Your task to perform on an android device: open the mobile data screen to see how much data has been used Image 0: 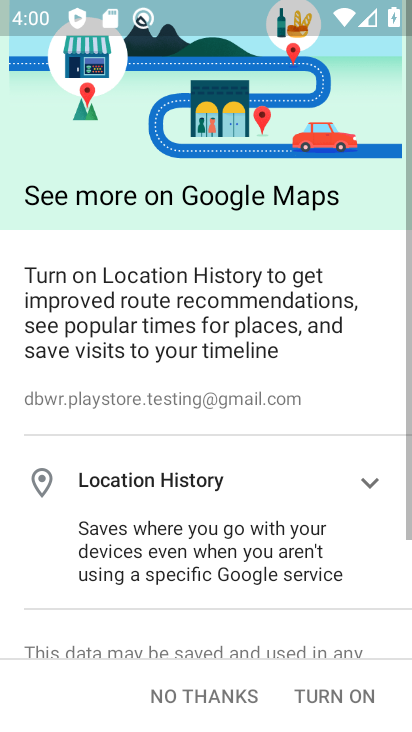
Step 0: press home button
Your task to perform on an android device: open the mobile data screen to see how much data has been used Image 1: 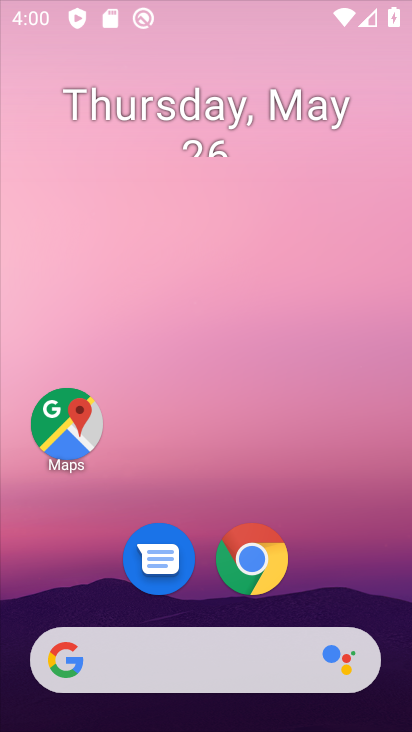
Step 1: drag from (350, 556) to (208, 0)
Your task to perform on an android device: open the mobile data screen to see how much data has been used Image 2: 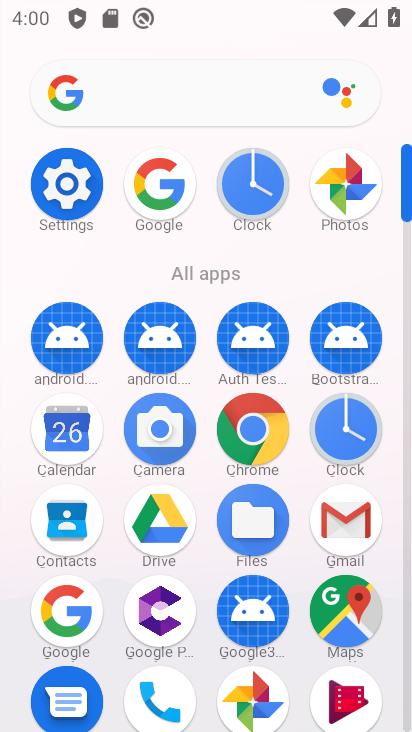
Step 2: click (63, 191)
Your task to perform on an android device: open the mobile data screen to see how much data has been used Image 3: 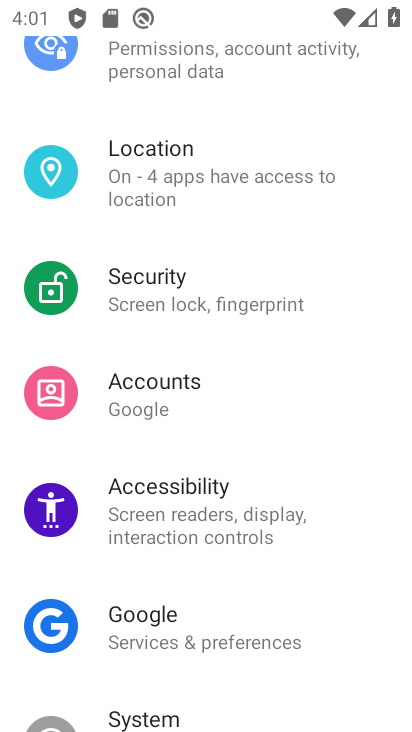
Step 3: drag from (233, 108) to (181, 713)
Your task to perform on an android device: open the mobile data screen to see how much data has been used Image 4: 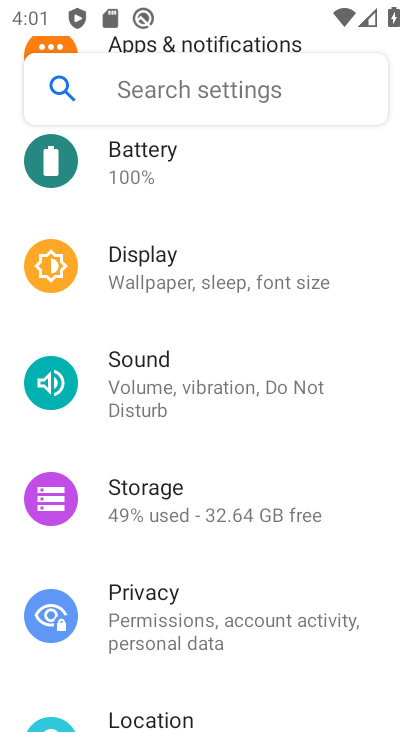
Step 4: drag from (242, 196) to (245, 729)
Your task to perform on an android device: open the mobile data screen to see how much data has been used Image 5: 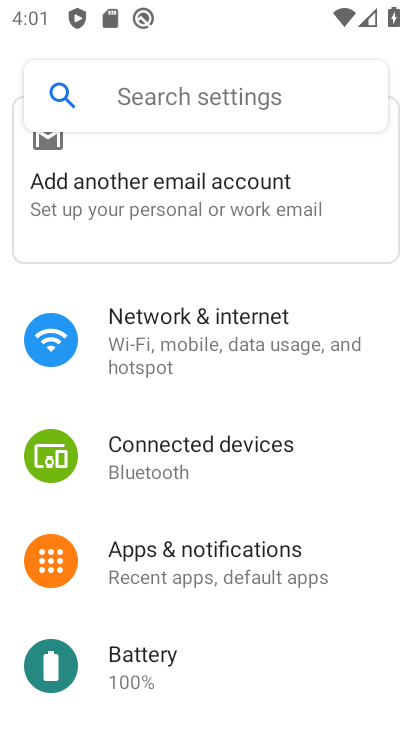
Step 5: click (195, 323)
Your task to perform on an android device: open the mobile data screen to see how much data has been used Image 6: 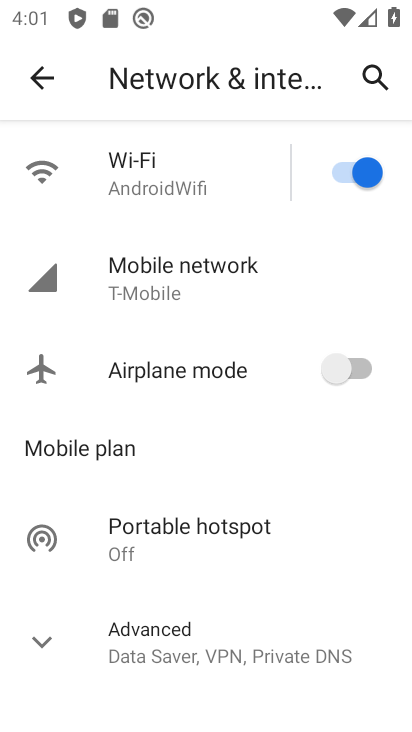
Step 6: click (149, 271)
Your task to perform on an android device: open the mobile data screen to see how much data has been used Image 7: 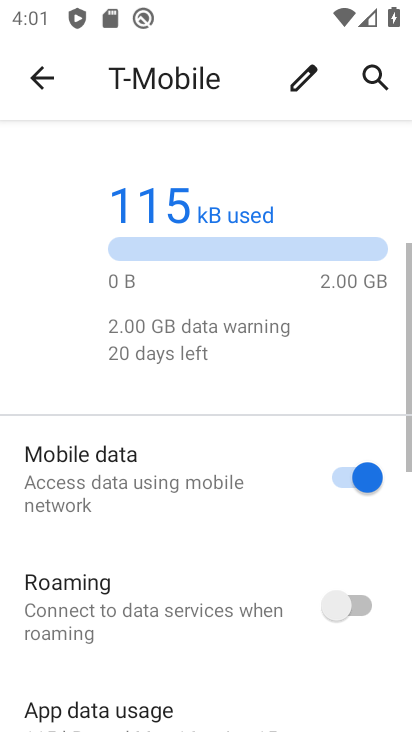
Step 7: task complete